Your task to perform on an android device: What's on my calendar today? Image 0: 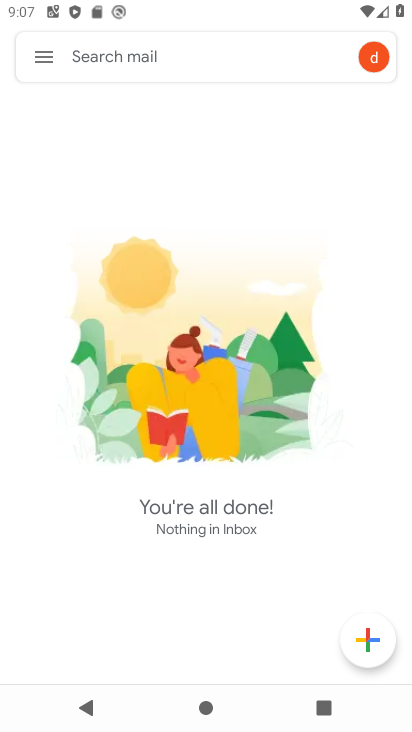
Step 0: press home button
Your task to perform on an android device: What's on my calendar today? Image 1: 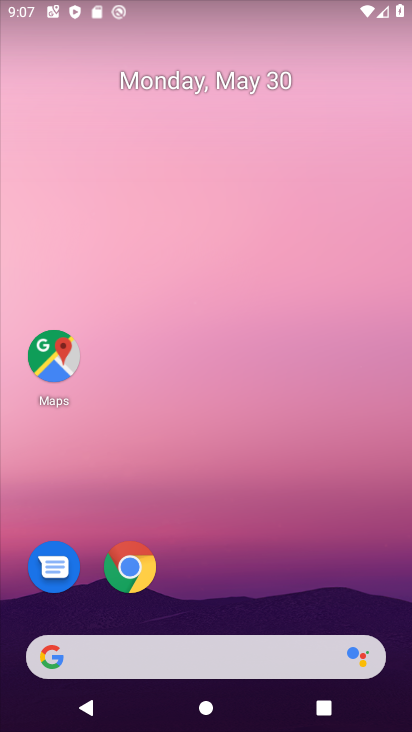
Step 1: click (167, 82)
Your task to perform on an android device: What's on my calendar today? Image 2: 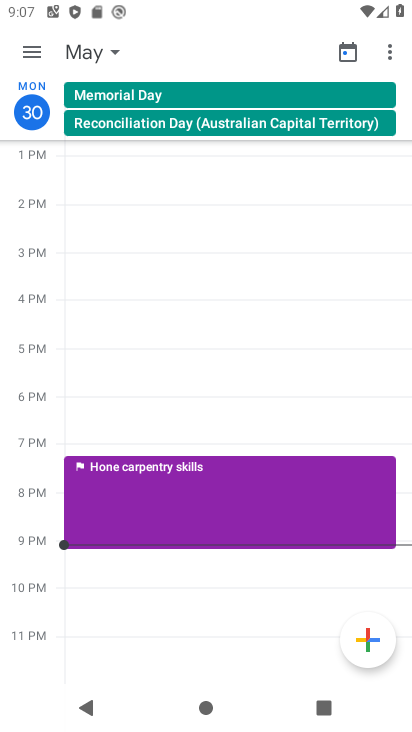
Step 2: task complete